Your task to perform on an android device: Go to battery settings Image 0: 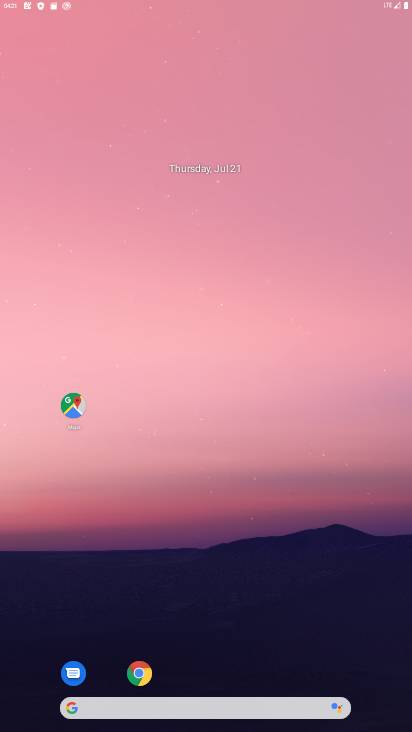
Step 0: drag from (266, 656) to (208, 8)
Your task to perform on an android device: Go to battery settings Image 1: 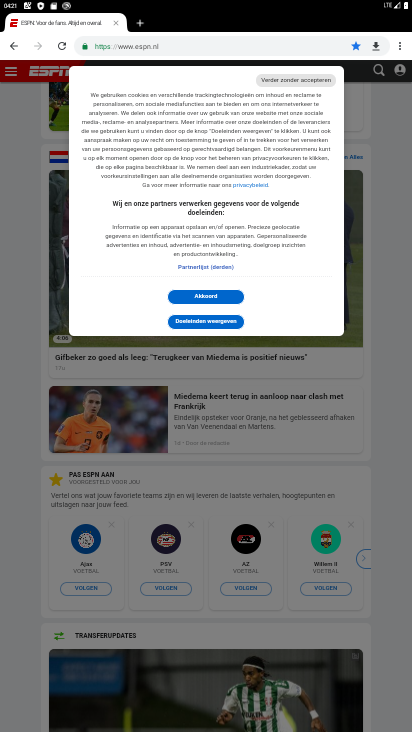
Step 1: press home button
Your task to perform on an android device: Go to battery settings Image 2: 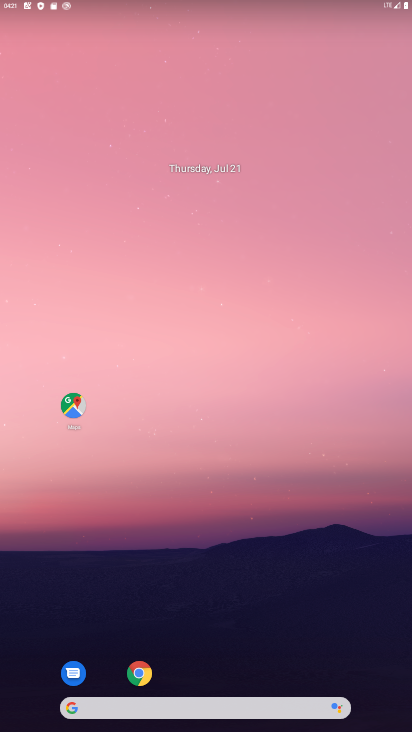
Step 2: drag from (273, 629) to (201, 83)
Your task to perform on an android device: Go to battery settings Image 3: 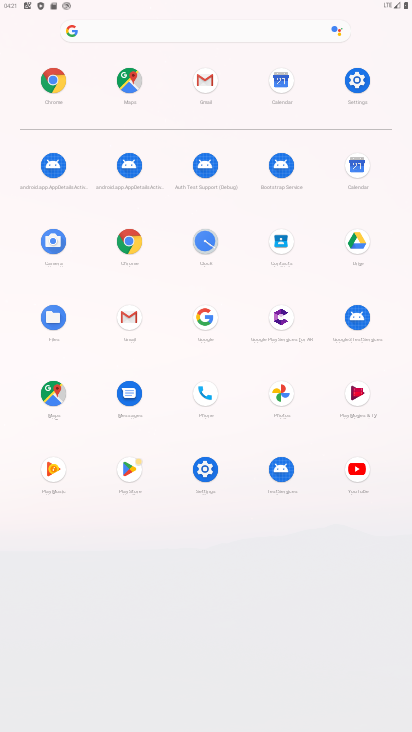
Step 3: click (361, 78)
Your task to perform on an android device: Go to battery settings Image 4: 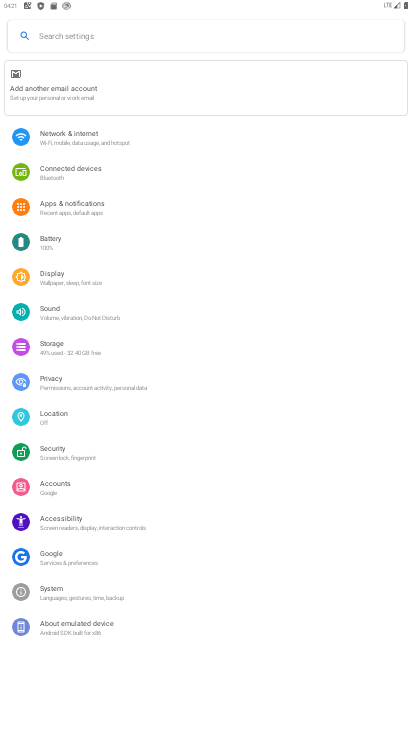
Step 4: click (48, 230)
Your task to perform on an android device: Go to battery settings Image 5: 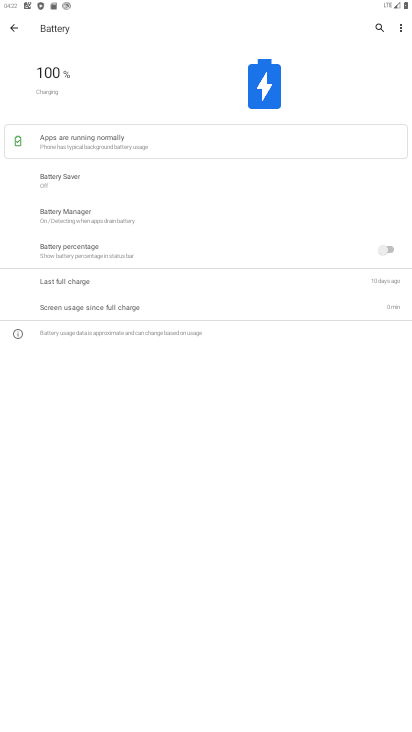
Step 5: task complete